Your task to perform on an android device: turn off smart reply in the gmail app Image 0: 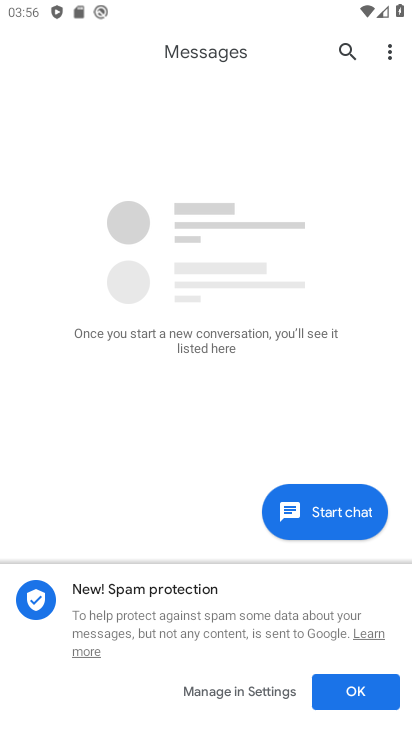
Step 0: press home button
Your task to perform on an android device: turn off smart reply in the gmail app Image 1: 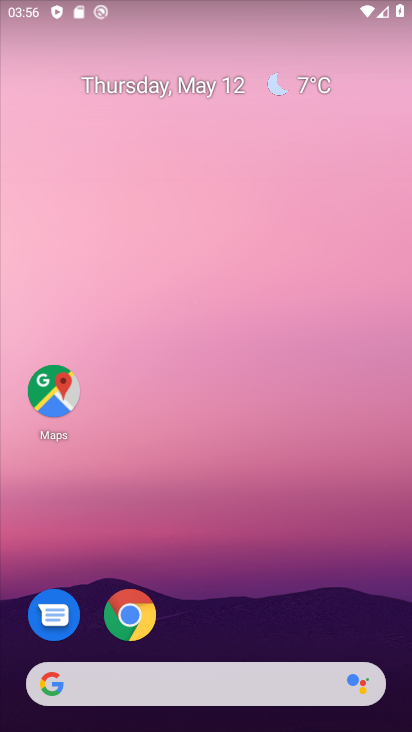
Step 1: drag from (303, 637) to (259, 145)
Your task to perform on an android device: turn off smart reply in the gmail app Image 2: 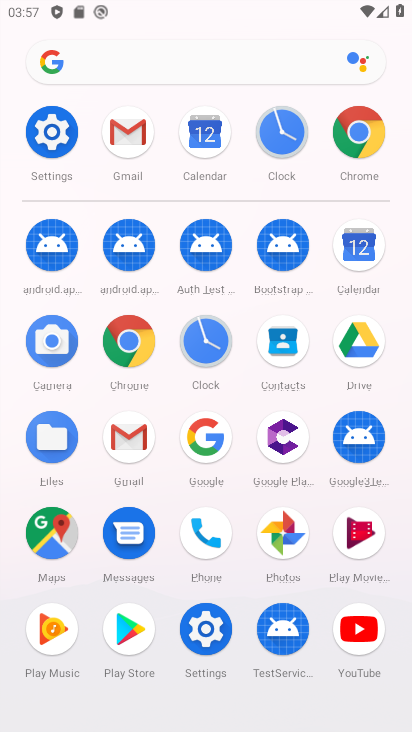
Step 2: click (127, 422)
Your task to perform on an android device: turn off smart reply in the gmail app Image 3: 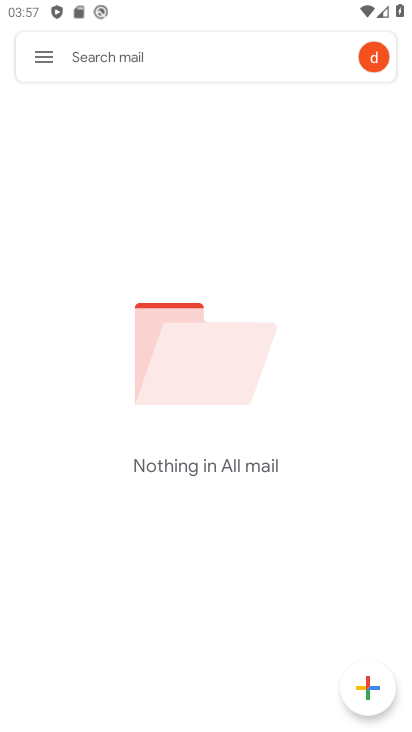
Step 3: click (39, 61)
Your task to perform on an android device: turn off smart reply in the gmail app Image 4: 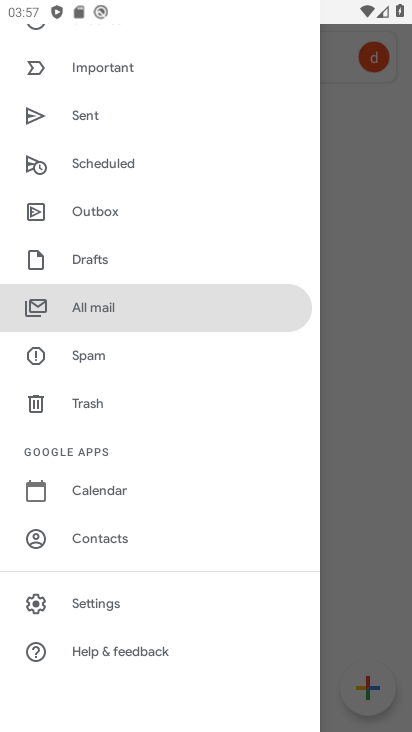
Step 4: click (107, 592)
Your task to perform on an android device: turn off smart reply in the gmail app Image 5: 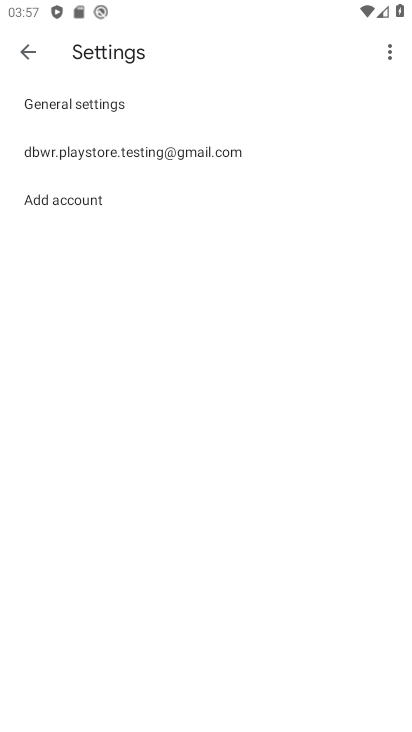
Step 5: click (106, 150)
Your task to perform on an android device: turn off smart reply in the gmail app Image 6: 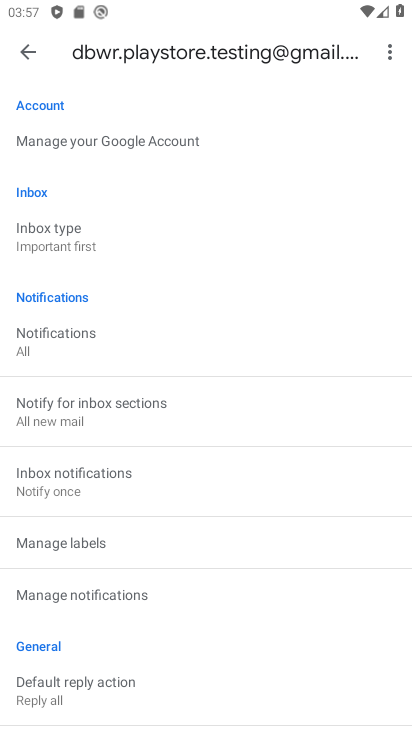
Step 6: drag from (90, 627) to (92, 125)
Your task to perform on an android device: turn off smart reply in the gmail app Image 7: 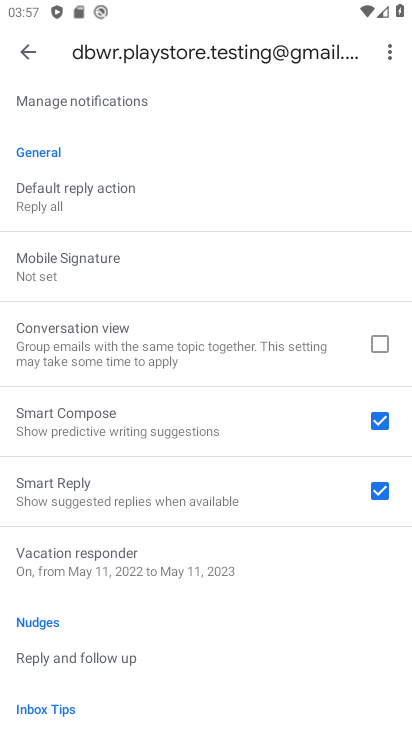
Step 7: click (372, 492)
Your task to perform on an android device: turn off smart reply in the gmail app Image 8: 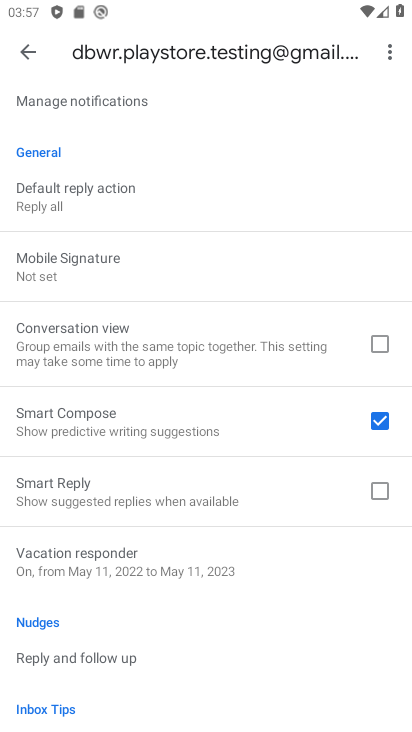
Step 8: task complete